Your task to perform on an android device: Check the weather Image 0: 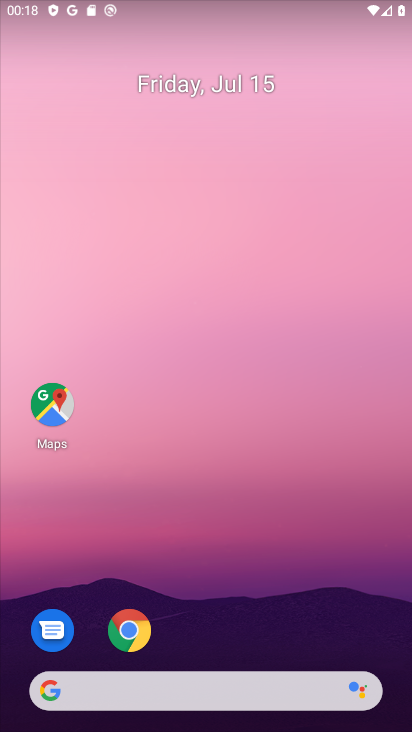
Step 0: click (207, 699)
Your task to perform on an android device: Check the weather Image 1: 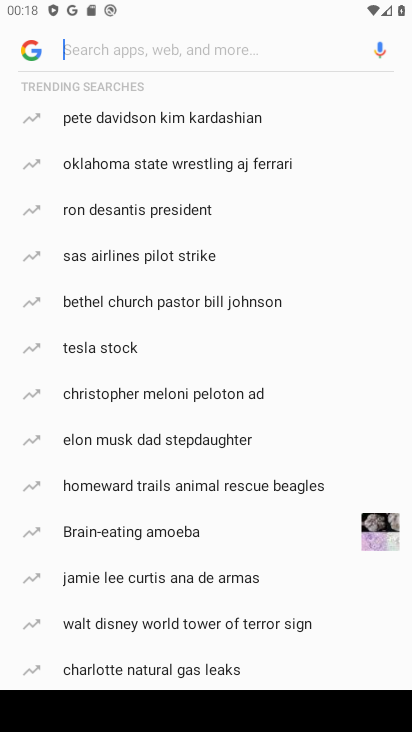
Step 1: type "weather"
Your task to perform on an android device: Check the weather Image 2: 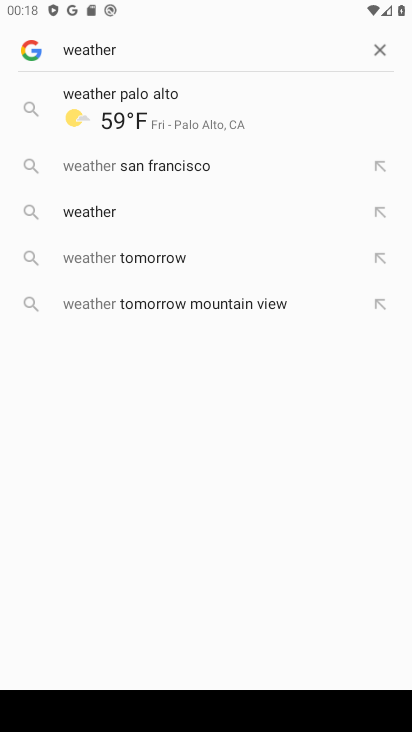
Step 2: click (240, 131)
Your task to perform on an android device: Check the weather Image 3: 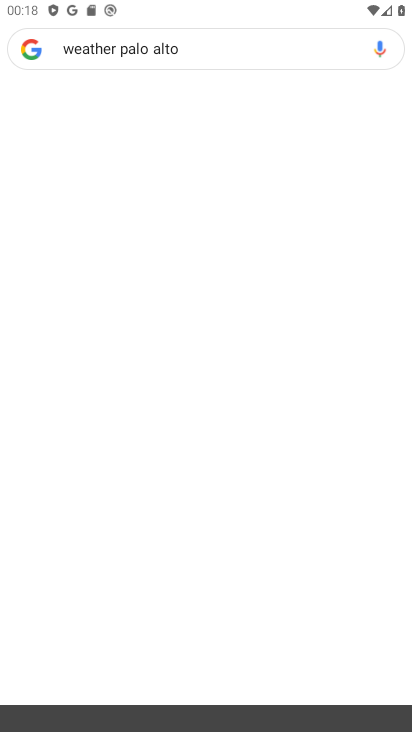
Step 3: task complete